Your task to perform on an android device: Go to Maps Image 0: 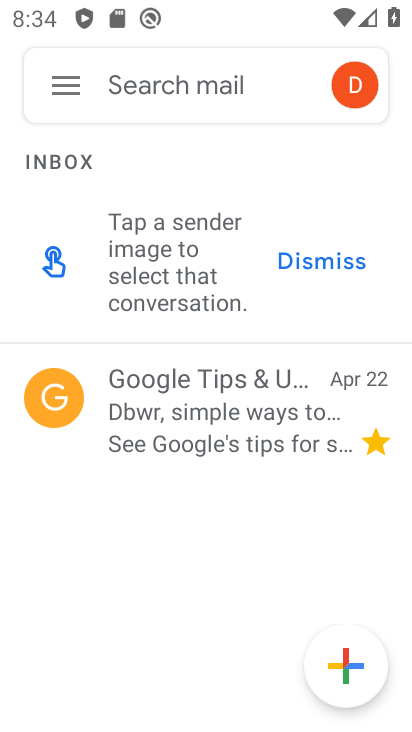
Step 0: press home button
Your task to perform on an android device: Go to Maps Image 1: 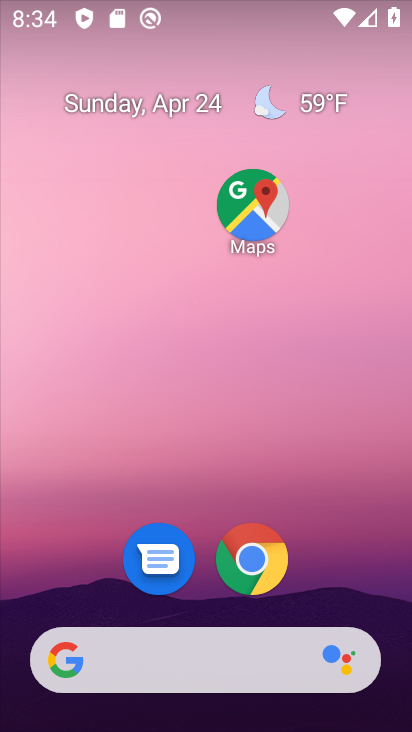
Step 1: click (267, 214)
Your task to perform on an android device: Go to Maps Image 2: 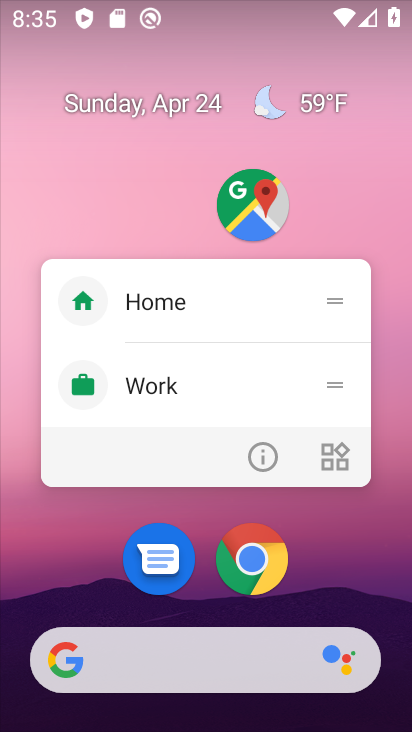
Step 2: click (267, 459)
Your task to perform on an android device: Go to Maps Image 3: 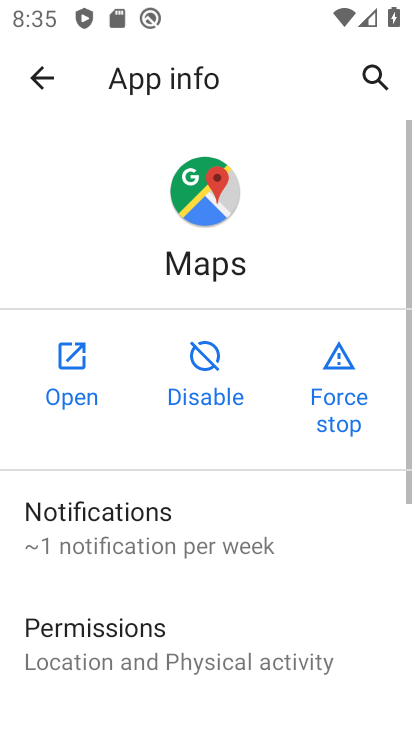
Step 3: click (83, 353)
Your task to perform on an android device: Go to Maps Image 4: 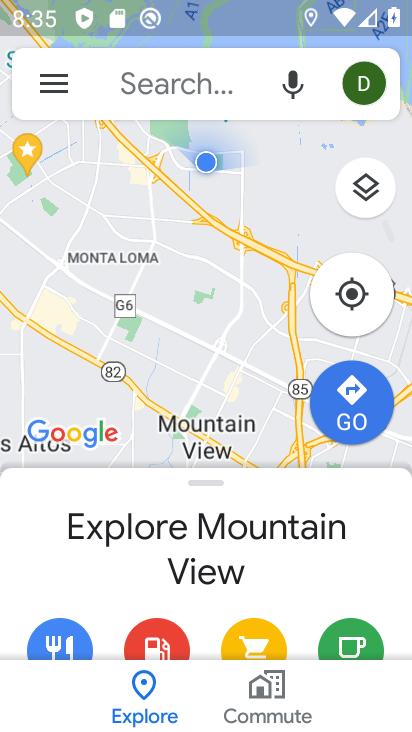
Step 4: task complete